Your task to perform on an android device: Go to Android settings Image 0: 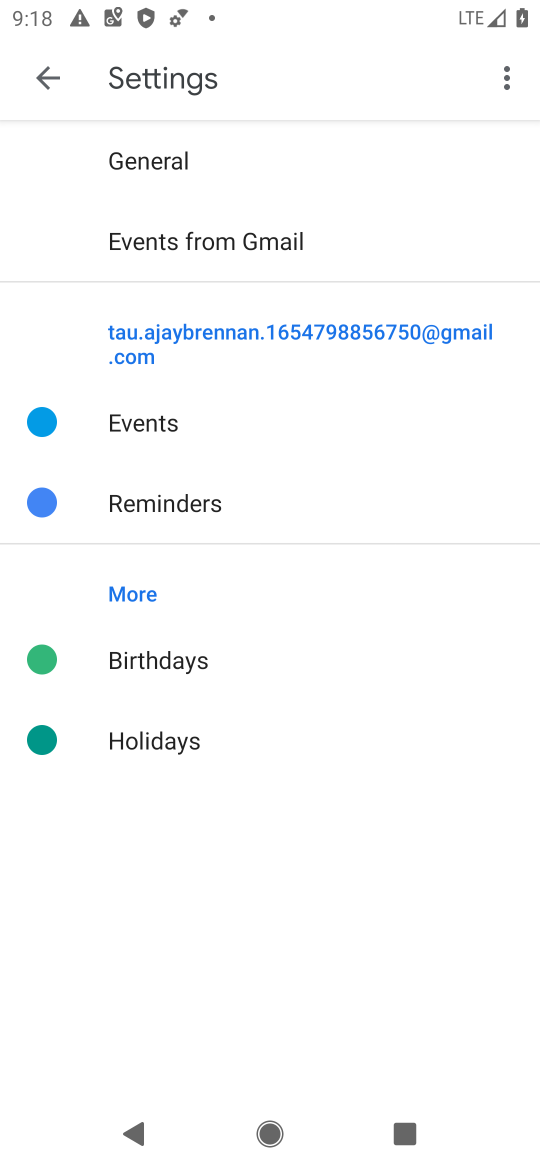
Step 0: press home button
Your task to perform on an android device: Go to Android settings Image 1: 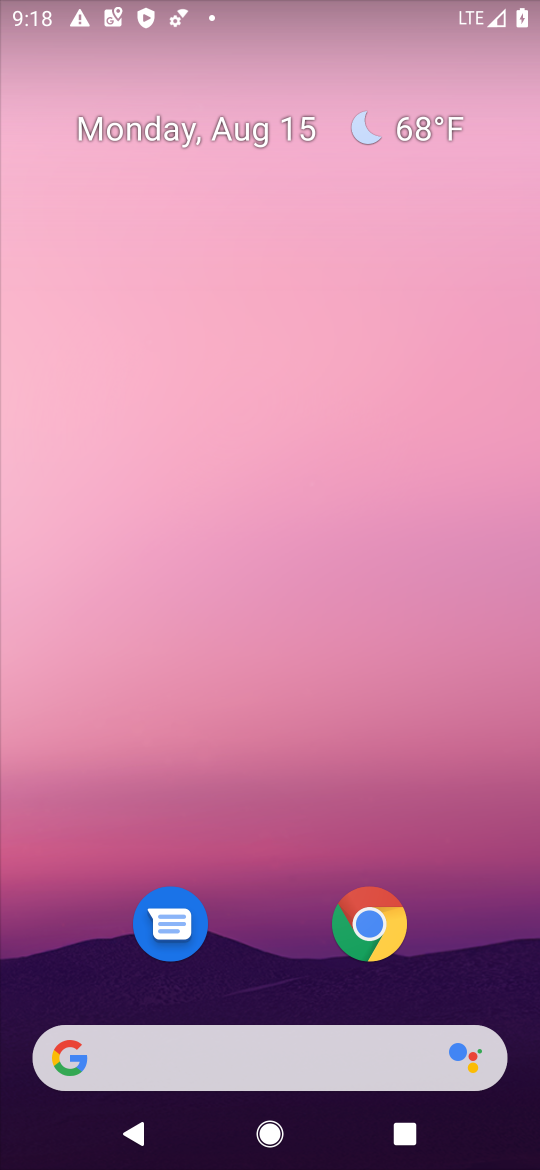
Step 1: drag from (486, 969) to (433, 209)
Your task to perform on an android device: Go to Android settings Image 2: 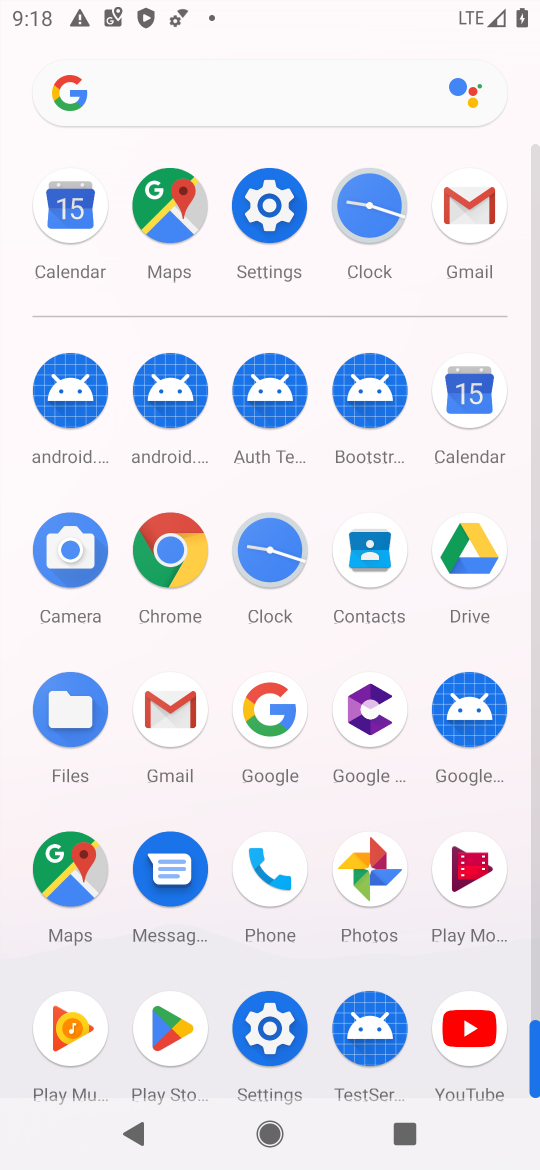
Step 2: click (270, 1035)
Your task to perform on an android device: Go to Android settings Image 3: 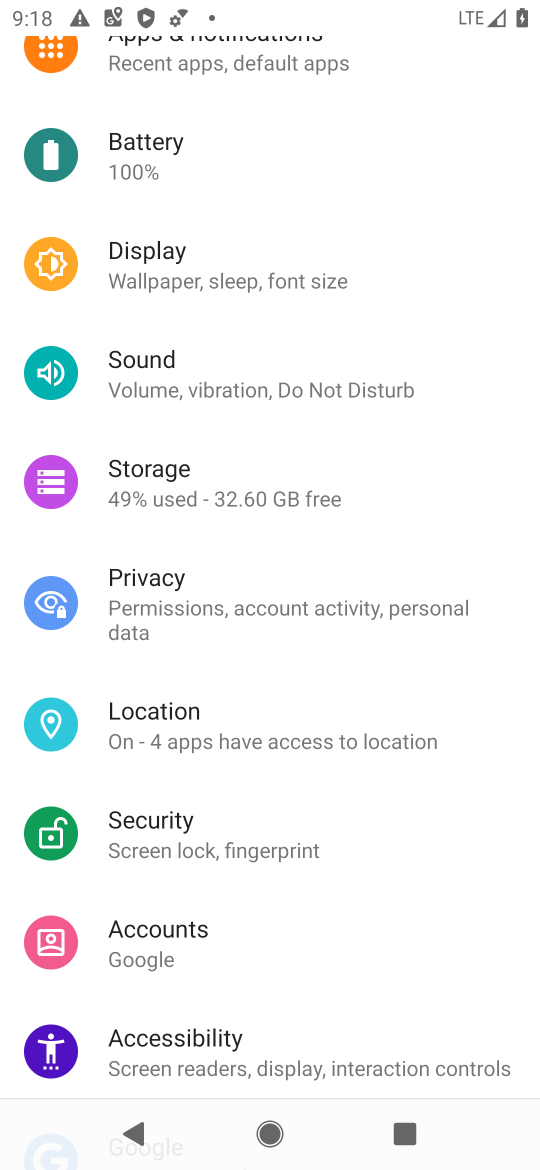
Step 3: drag from (459, 1066) to (394, 489)
Your task to perform on an android device: Go to Android settings Image 4: 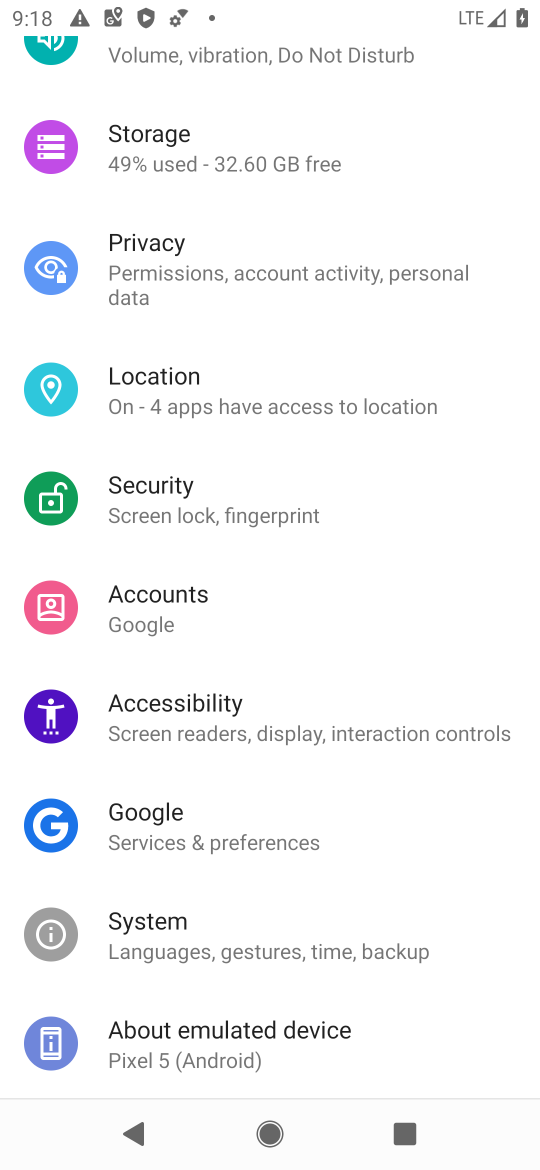
Step 4: click (199, 1043)
Your task to perform on an android device: Go to Android settings Image 5: 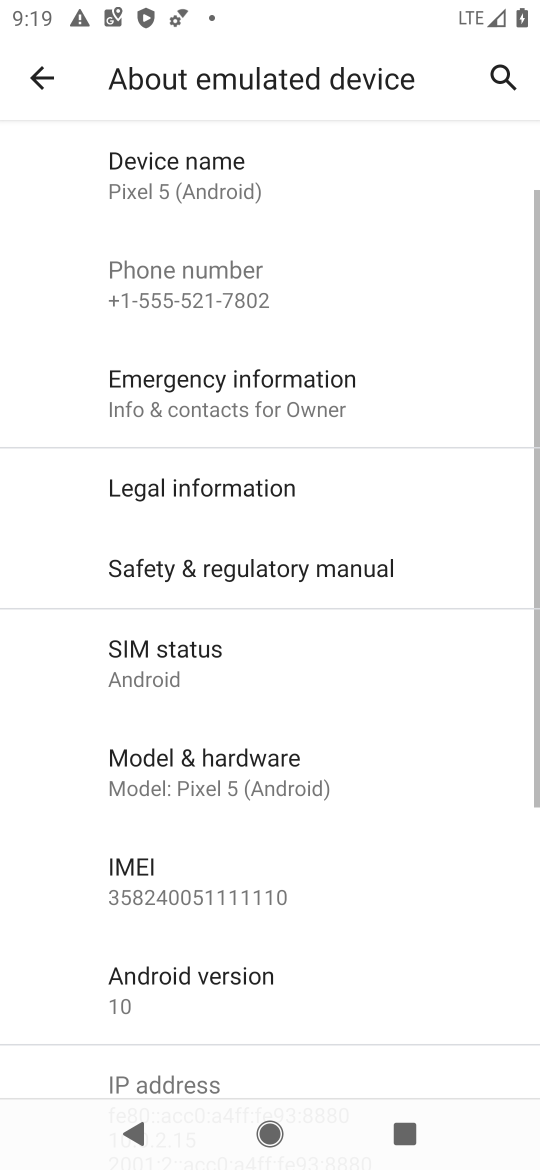
Step 5: task complete